Your task to perform on an android device: toggle javascript in the chrome app Image 0: 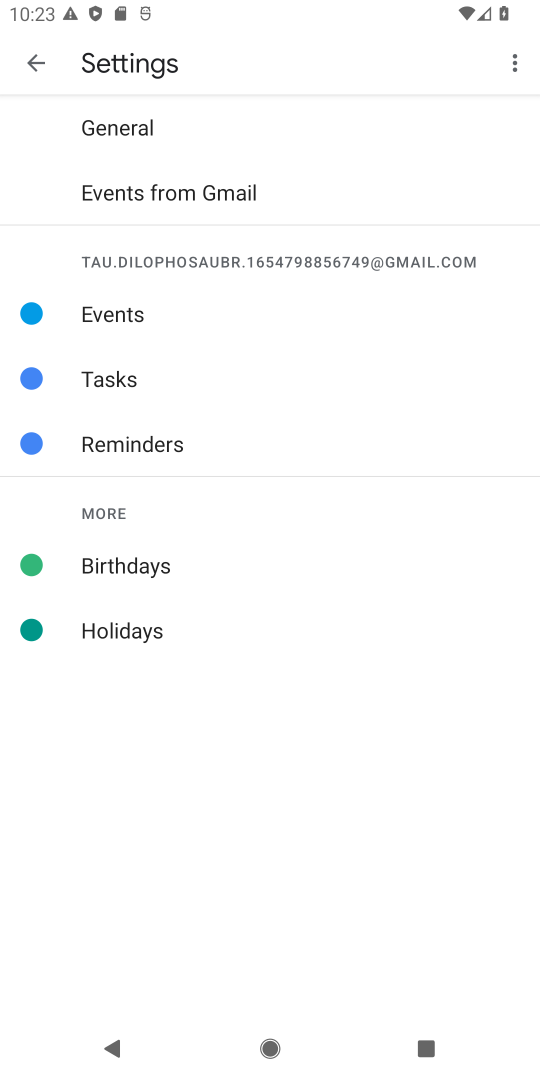
Step 0: press back button
Your task to perform on an android device: toggle javascript in the chrome app Image 1: 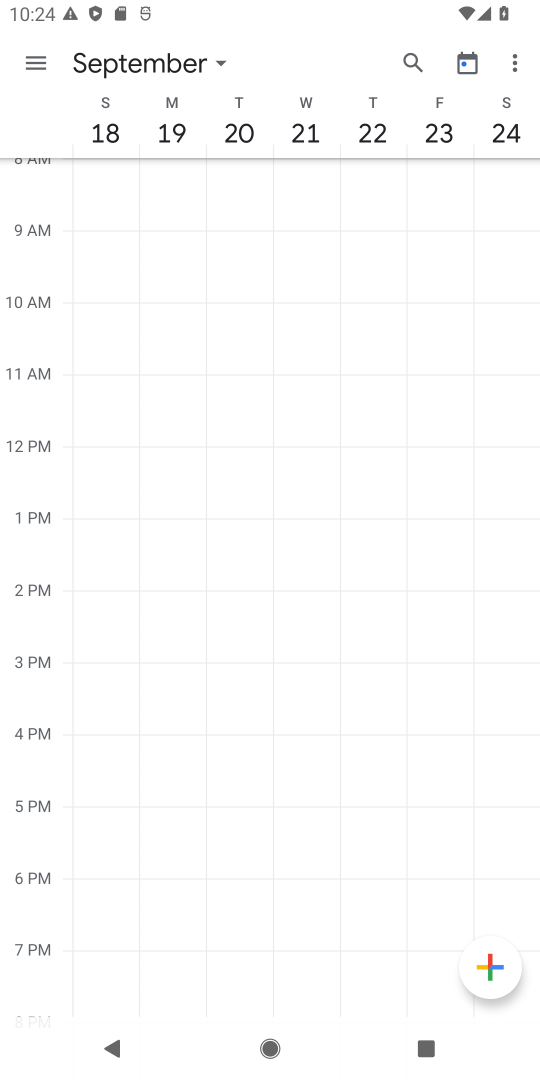
Step 1: press home button
Your task to perform on an android device: toggle javascript in the chrome app Image 2: 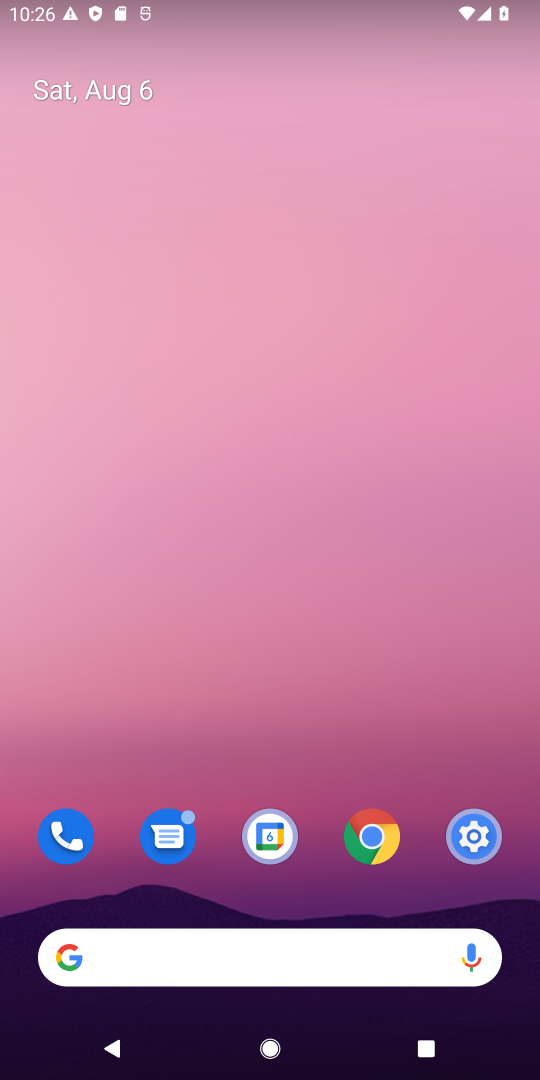
Step 2: click (368, 836)
Your task to perform on an android device: toggle javascript in the chrome app Image 3: 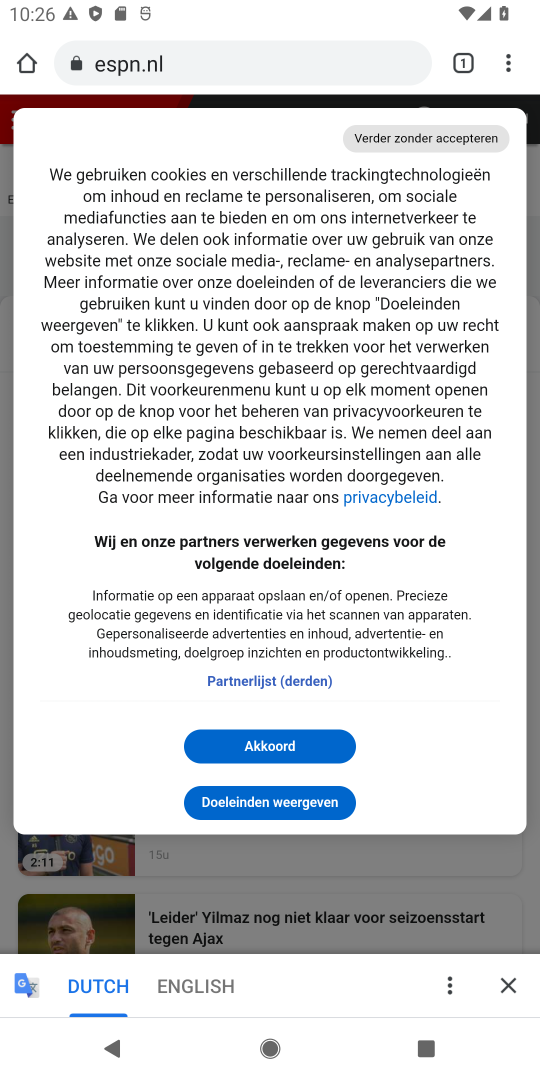
Step 3: click (514, 60)
Your task to perform on an android device: toggle javascript in the chrome app Image 4: 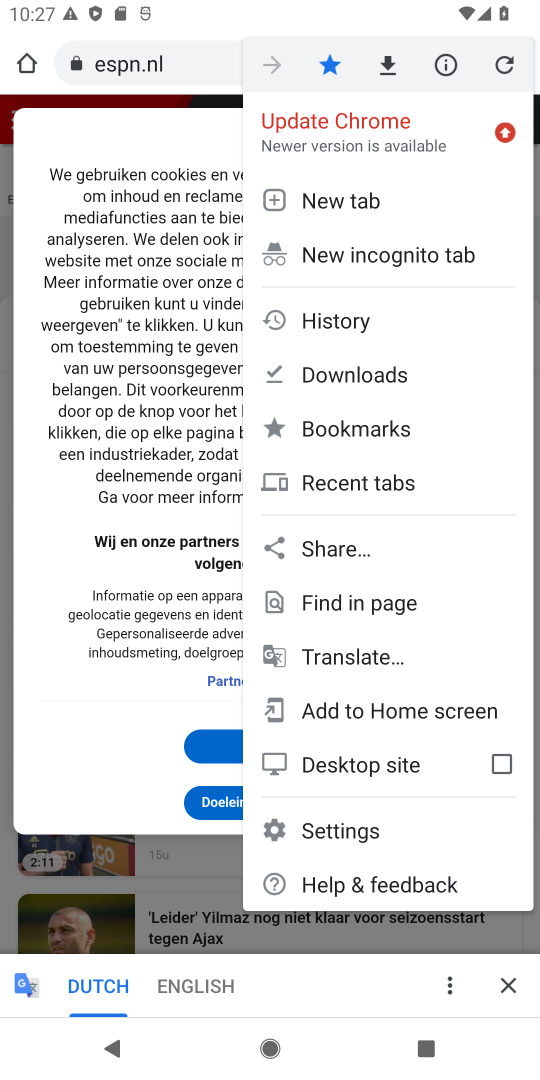
Step 4: click (363, 834)
Your task to perform on an android device: toggle javascript in the chrome app Image 5: 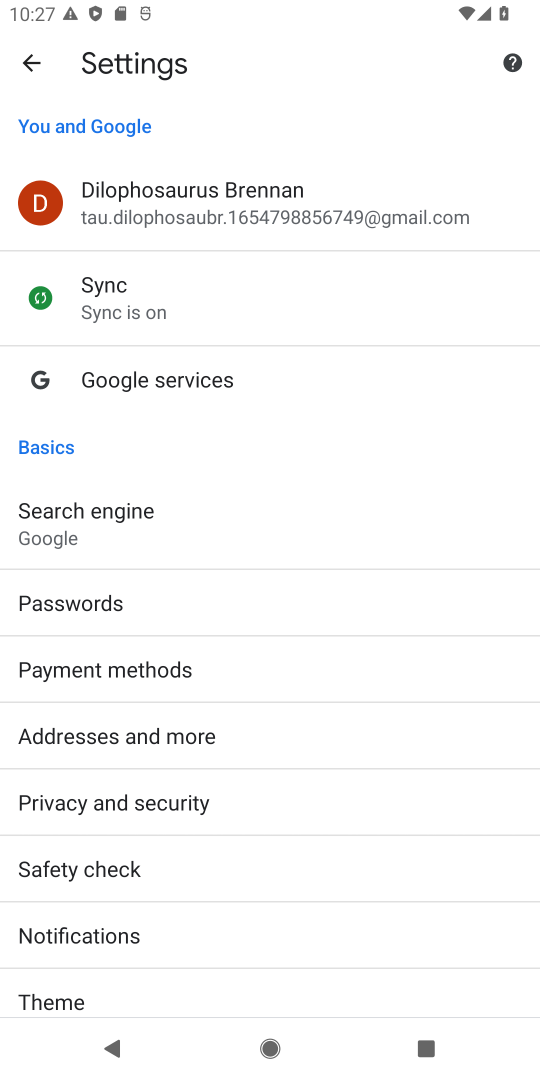
Step 5: drag from (118, 792) to (164, 494)
Your task to perform on an android device: toggle javascript in the chrome app Image 6: 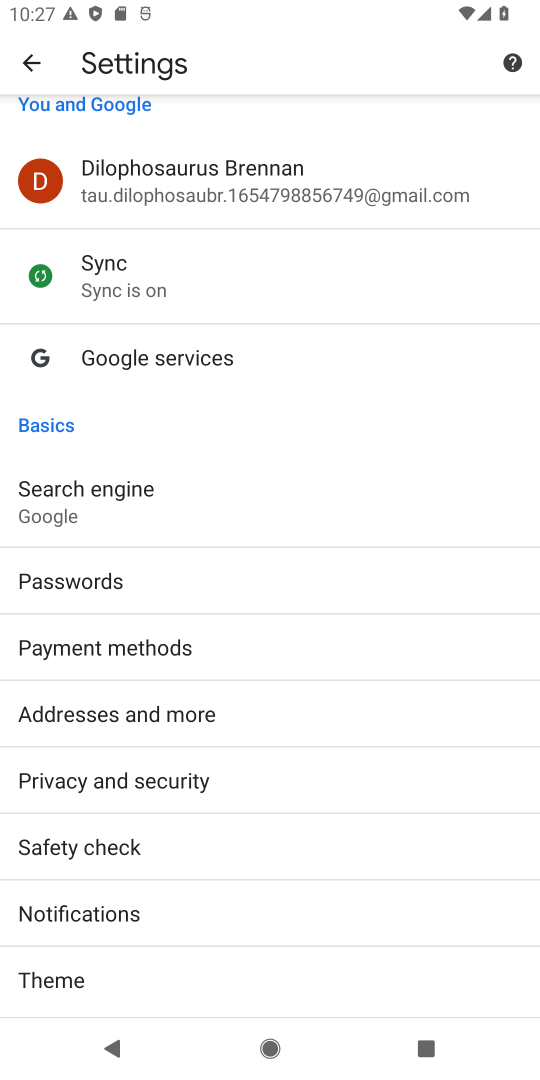
Step 6: drag from (103, 952) to (103, 529)
Your task to perform on an android device: toggle javascript in the chrome app Image 7: 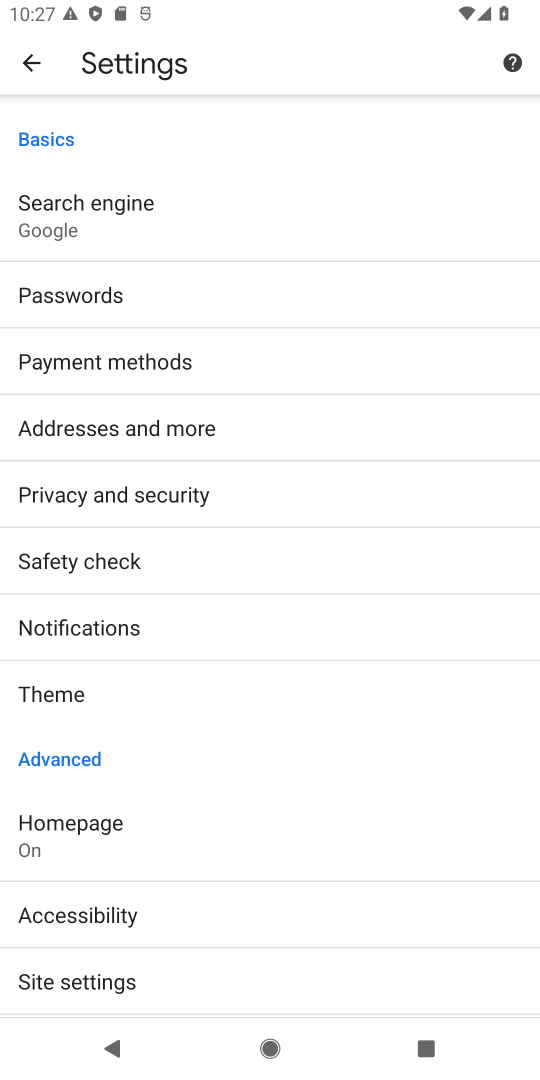
Step 7: click (126, 972)
Your task to perform on an android device: toggle javascript in the chrome app Image 8: 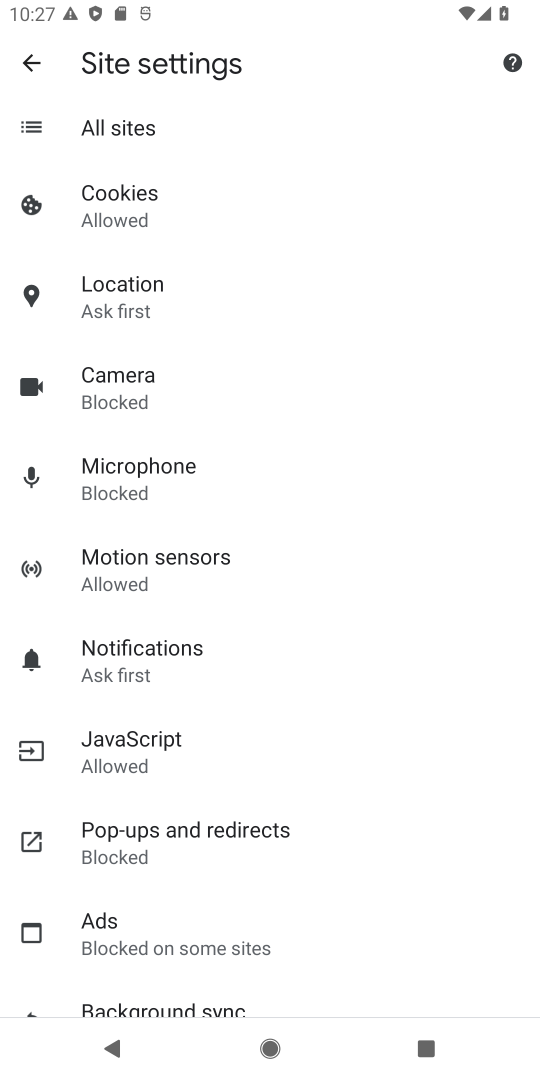
Step 8: click (154, 725)
Your task to perform on an android device: toggle javascript in the chrome app Image 9: 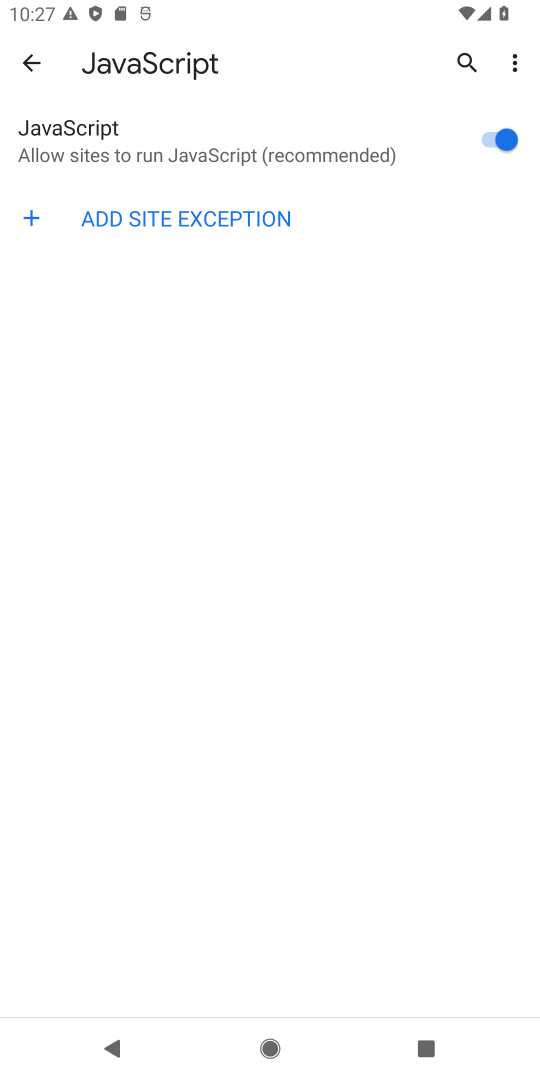
Step 9: click (467, 143)
Your task to perform on an android device: toggle javascript in the chrome app Image 10: 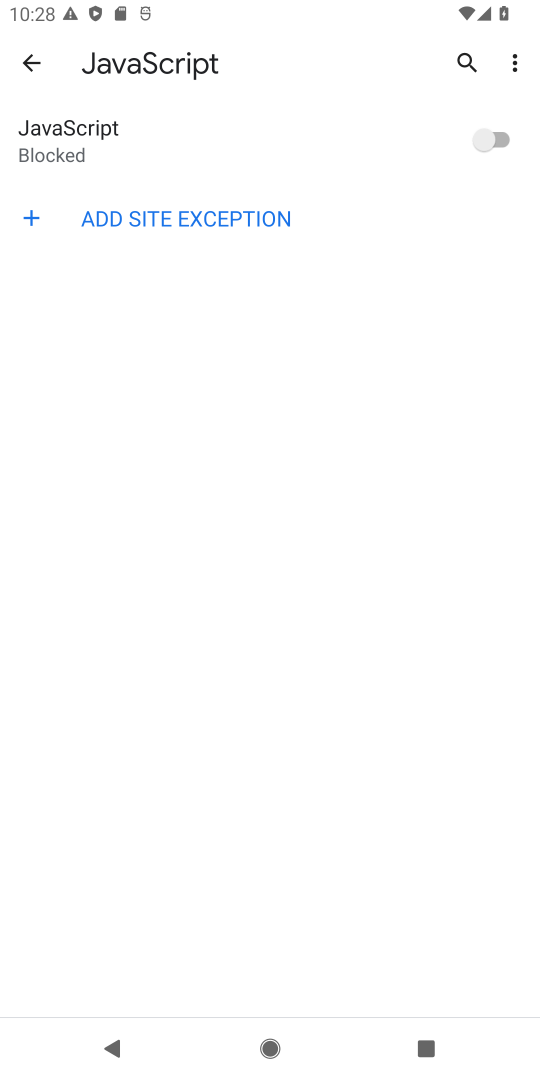
Step 10: task complete